Your task to perform on an android device: turn on notifications settings in the gmail app Image 0: 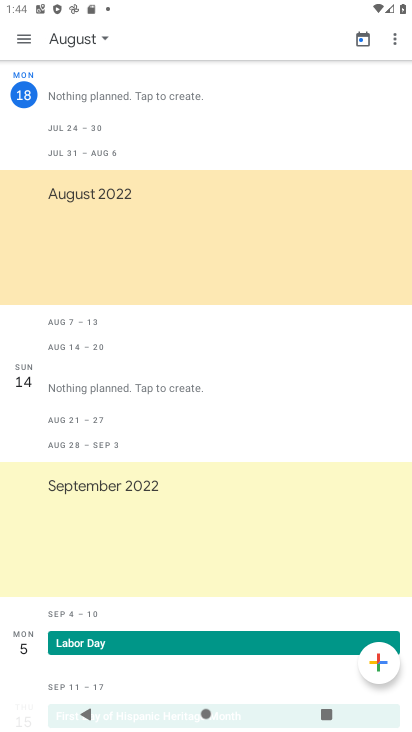
Step 0: click (351, 634)
Your task to perform on an android device: turn on notifications settings in the gmail app Image 1: 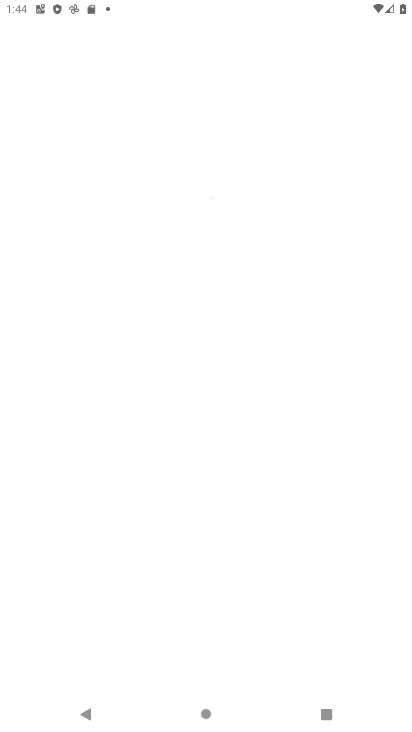
Step 1: press home button
Your task to perform on an android device: turn on notifications settings in the gmail app Image 2: 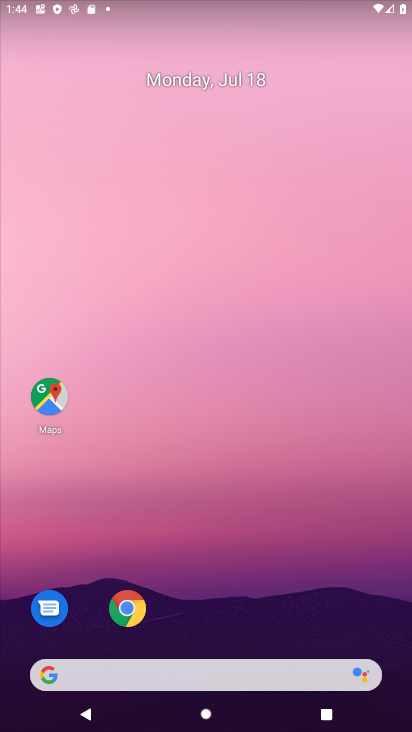
Step 2: drag from (290, 624) to (230, 71)
Your task to perform on an android device: turn on notifications settings in the gmail app Image 3: 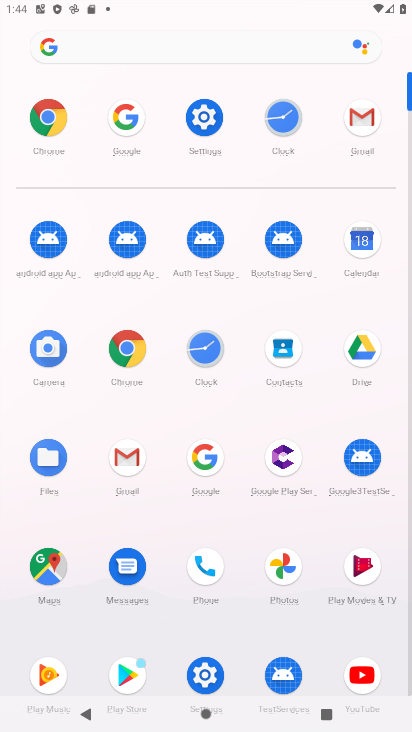
Step 3: click (124, 468)
Your task to perform on an android device: turn on notifications settings in the gmail app Image 4: 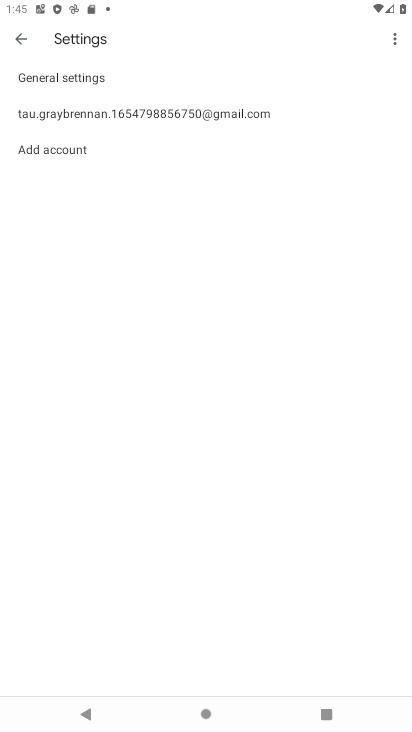
Step 4: click (139, 111)
Your task to perform on an android device: turn on notifications settings in the gmail app Image 5: 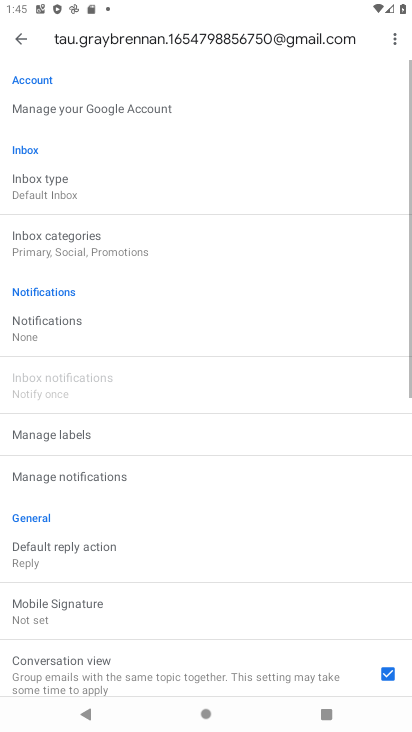
Step 5: click (24, 338)
Your task to perform on an android device: turn on notifications settings in the gmail app Image 6: 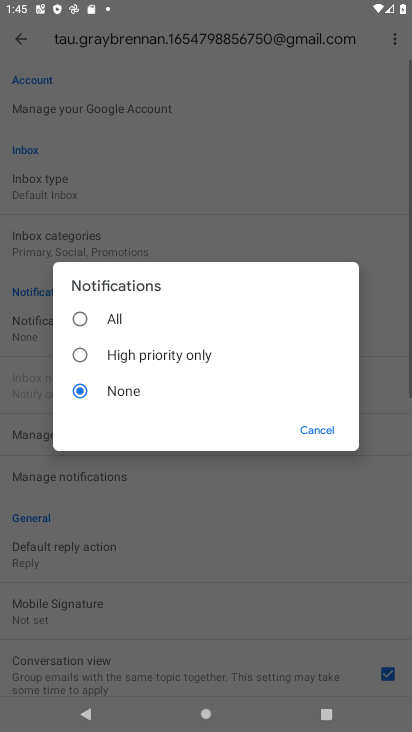
Step 6: click (86, 318)
Your task to perform on an android device: turn on notifications settings in the gmail app Image 7: 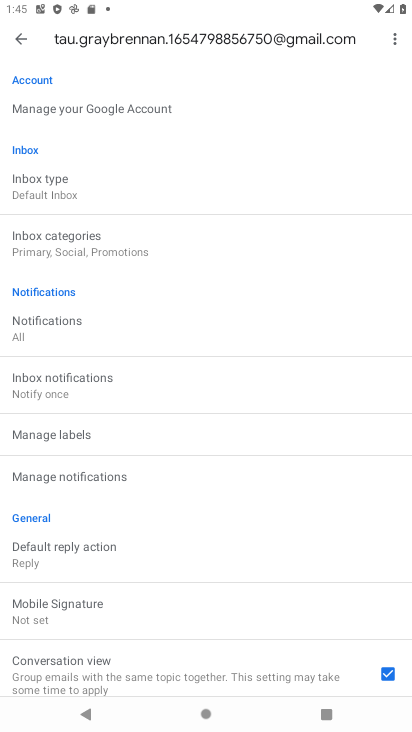
Step 7: task complete